Your task to perform on an android device: Is it going to rain today? Image 0: 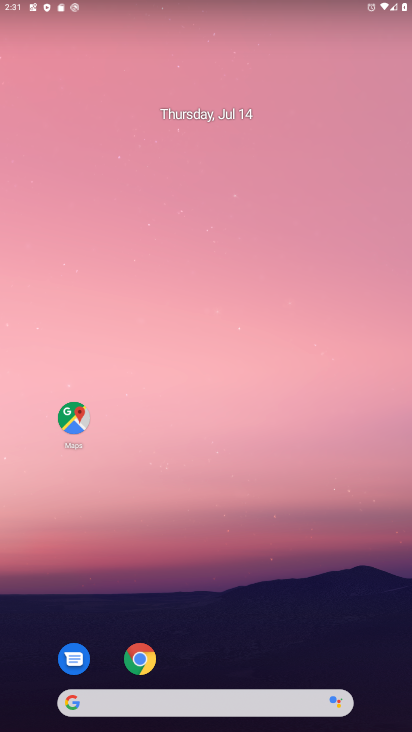
Step 0: press home button
Your task to perform on an android device: Is it going to rain today? Image 1: 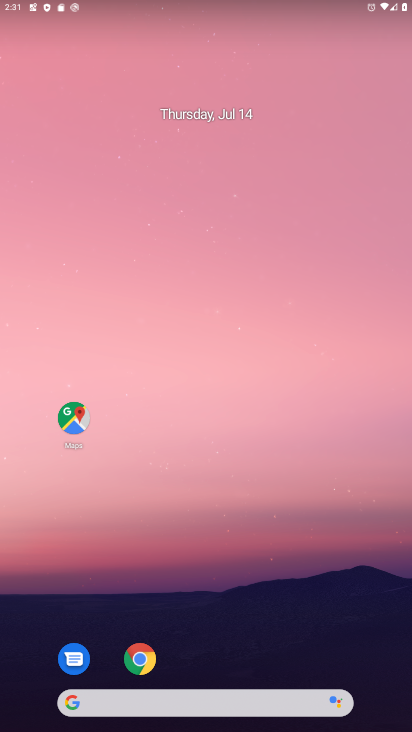
Step 1: click (80, 710)
Your task to perform on an android device: Is it going to rain today? Image 2: 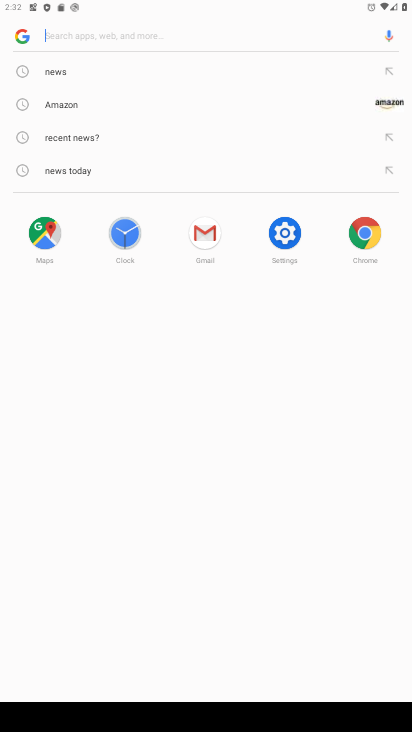
Step 2: type "rain today?"
Your task to perform on an android device: Is it going to rain today? Image 3: 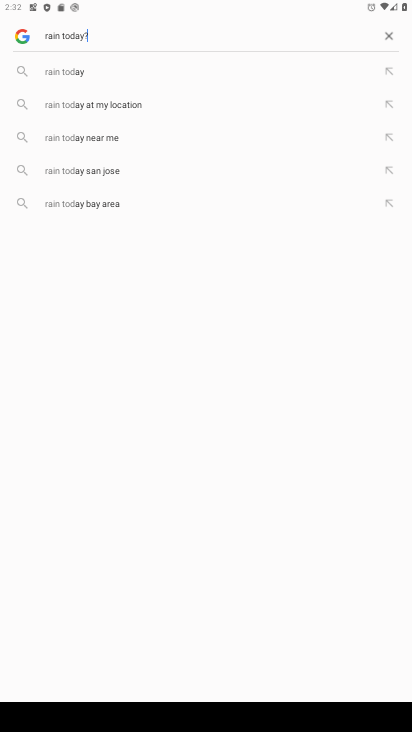
Step 3: press enter
Your task to perform on an android device: Is it going to rain today? Image 4: 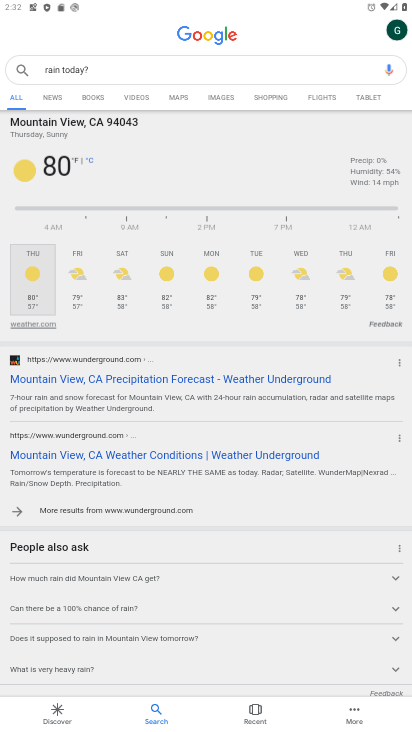
Step 4: task complete